Your task to perform on an android device: stop showing notifications on the lock screen Image 0: 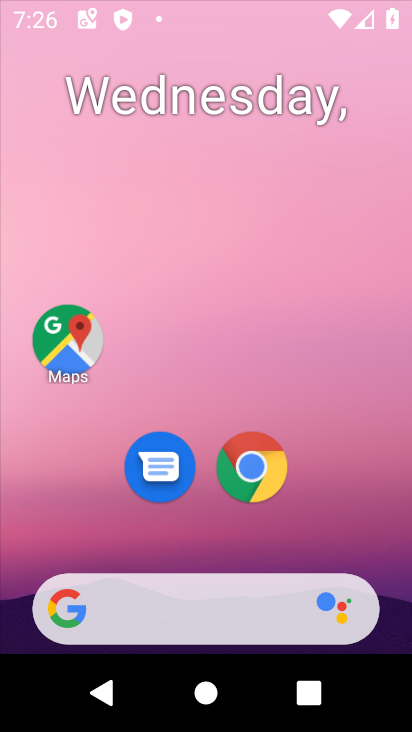
Step 0: click (247, 468)
Your task to perform on an android device: stop showing notifications on the lock screen Image 1: 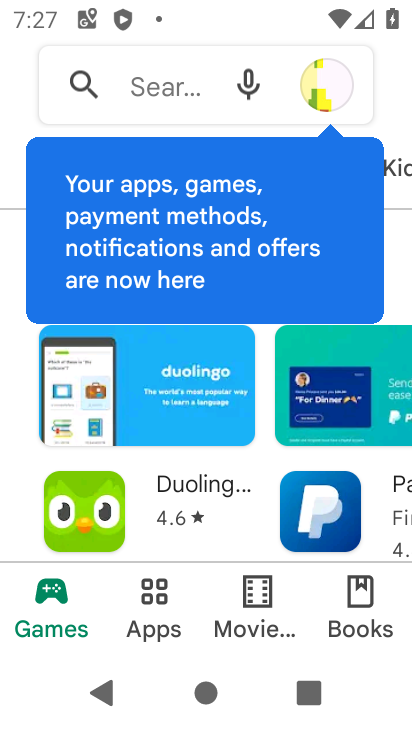
Step 1: press home button
Your task to perform on an android device: stop showing notifications on the lock screen Image 2: 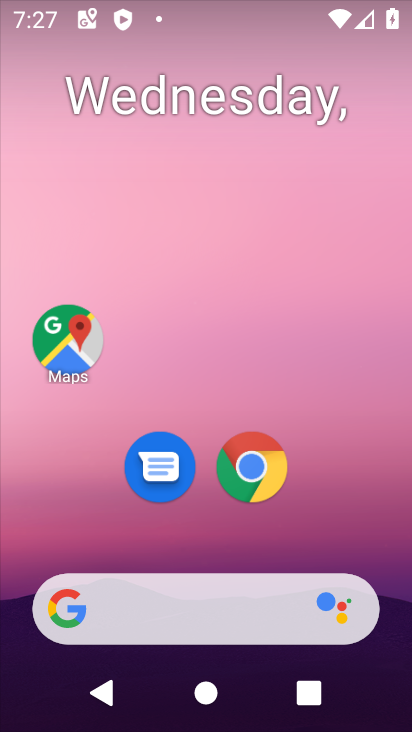
Step 2: drag from (375, 339) to (352, 65)
Your task to perform on an android device: stop showing notifications on the lock screen Image 3: 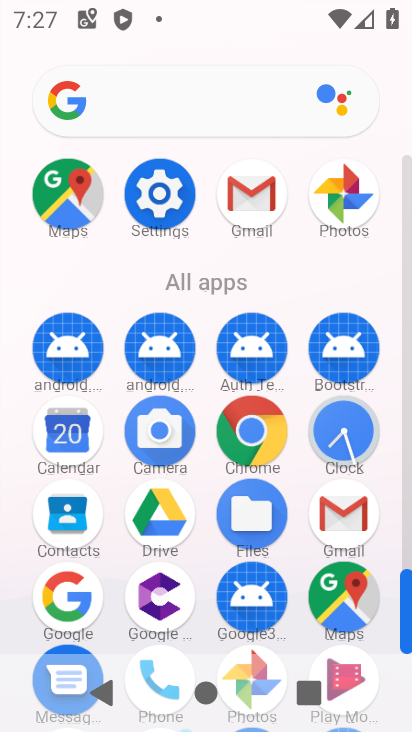
Step 3: click (159, 194)
Your task to perform on an android device: stop showing notifications on the lock screen Image 4: 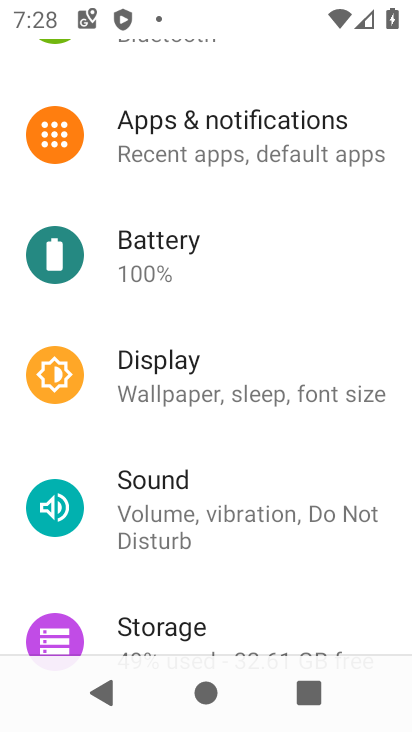
Step 4: drag from (338, 474) to (308, 183)
Your task to perform on an android device: stop showing notifications on the lock screen Image 5: 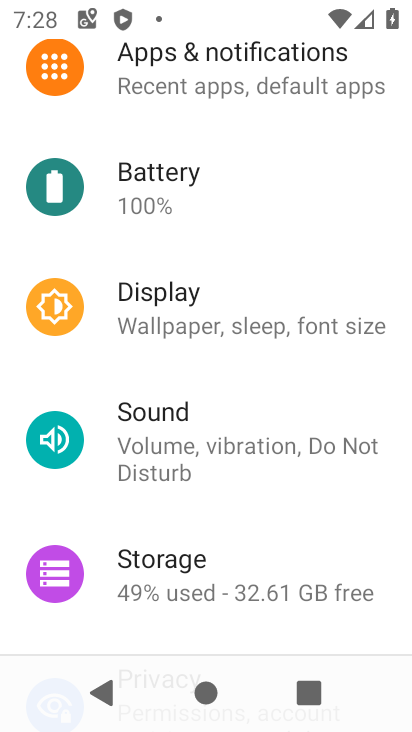
Step 5: click (169, 72)
Your task to perform on an android device: stop showing notifications on the lock screen Image 6: 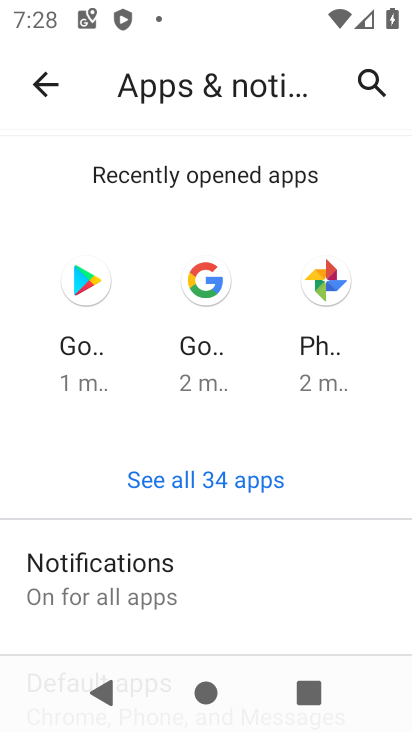
Step 6: click (99, 573)
Your task to perform on an android device: stop showing notifications on the lock screen Image 7: 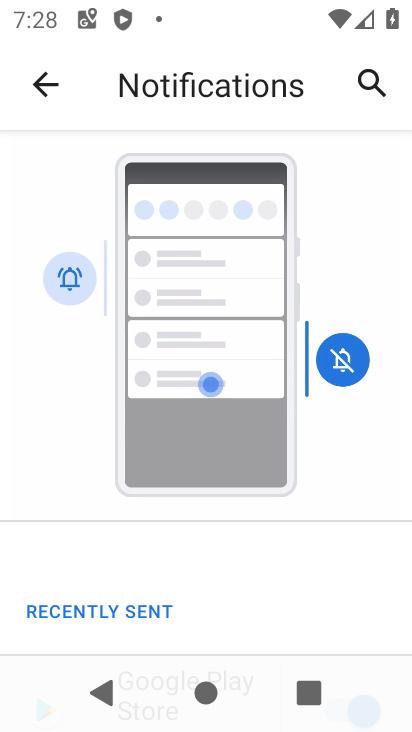
Step 7: drag from (319, 609) to (312, 119)
Your task to perform on an android device: stop showing notifications on the lock screen Image 8: 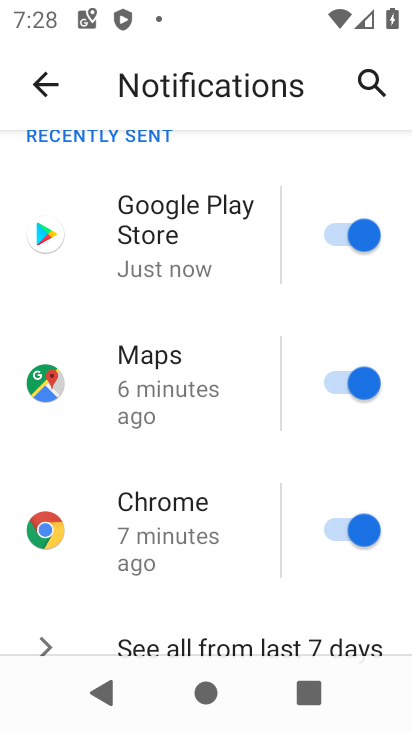
Step 8: drag from (258, 587) to (296, 268)
Your task to perform on an android device: stop showing notifications on the lock screen Image 9: 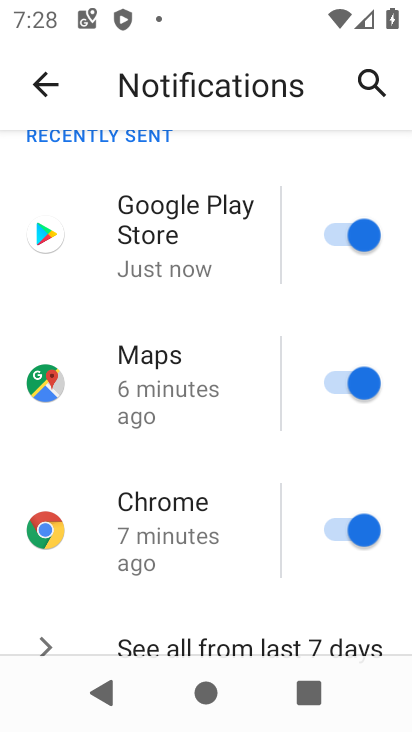
Step 9: drag from (275, 517) to (274, 267)
Your task to perform on an android device: stop showing notifications on the lock screen Image 10: 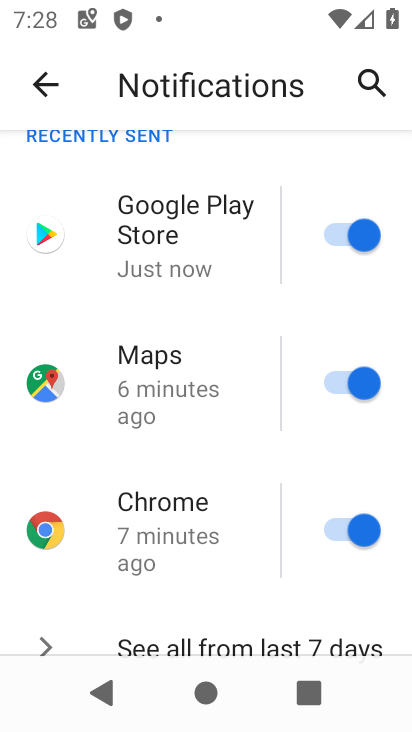
Step 10: drag from (263, 596) to (288, 244)
Your task to perform on an android device: stop showing notifications on the lock screen Image 11: 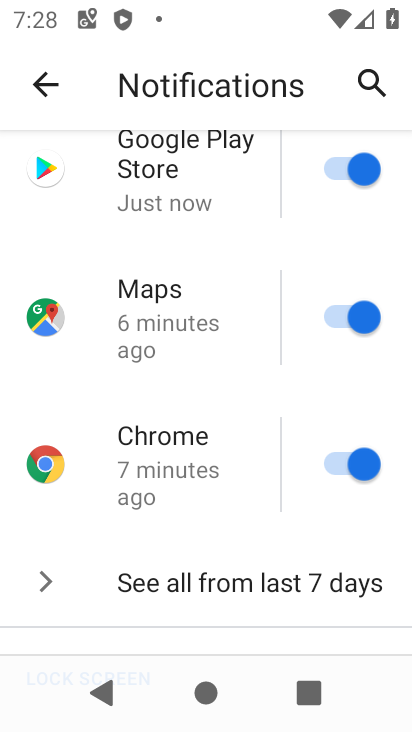
Step 11: drag from (259, 568) to (258, 214)
Your task to perform on an android device: stop showing notifications on the lock screen Image 12: 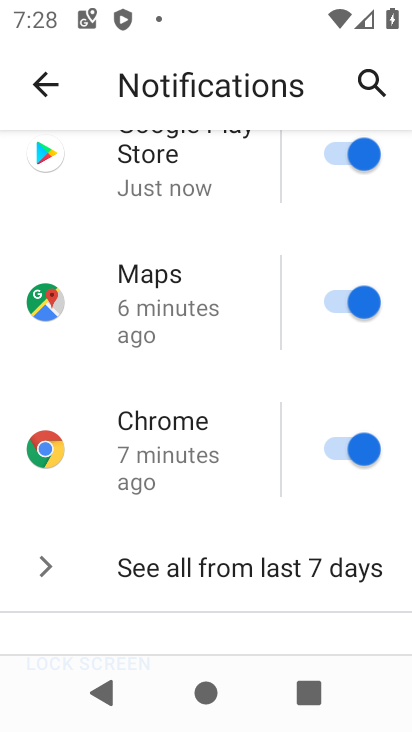
Step 12: drag from (269, 459) to (273, 284)
Your task to perform on an android device: stop showing notifications on the lock screen Image 13: 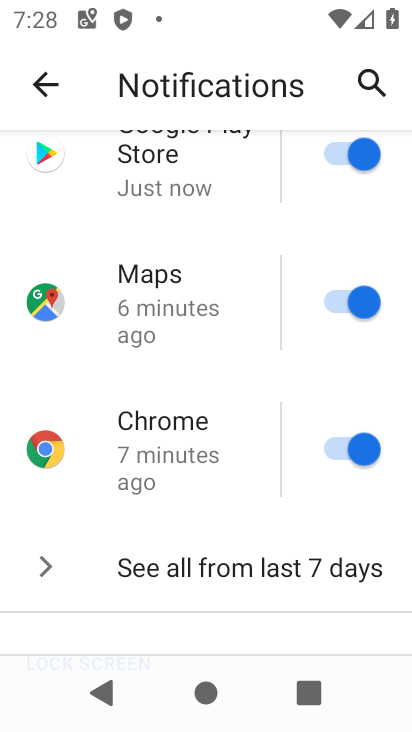
Step 13: drag from (265, 573) to (248, 265)
Your task to perform on an android device: stop showing notifications on the lock screen Image 14: 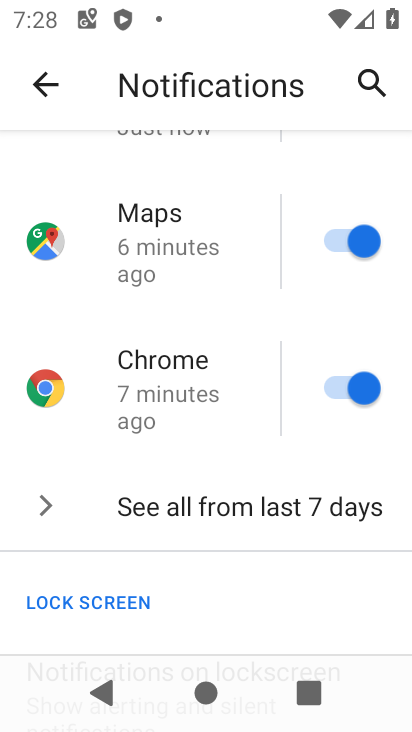
Step 14: drag from (239, 423) to (269, 248)
Your task to perform on an android device: stop showing notifications on the lock screen Image 15: 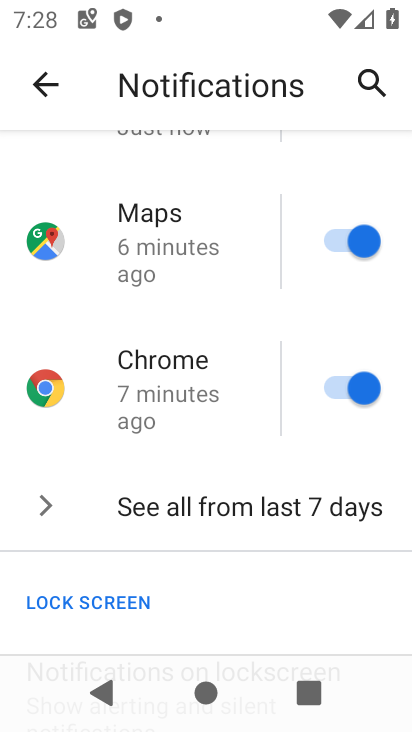
Step 15: click (72, 595)
Your task to perform on an android device: stop showing notifications on the lock screen Image 16: 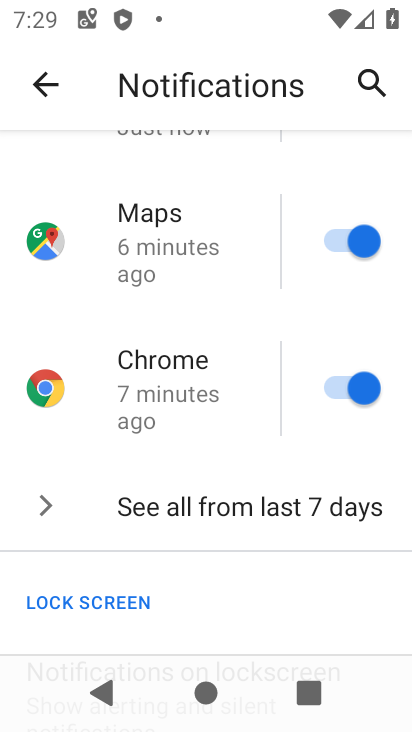
Step 16: drag from (198, 567) to (224, 277)
Your task to perform on an android device: stop showing notifications on the lock screen Image 17: 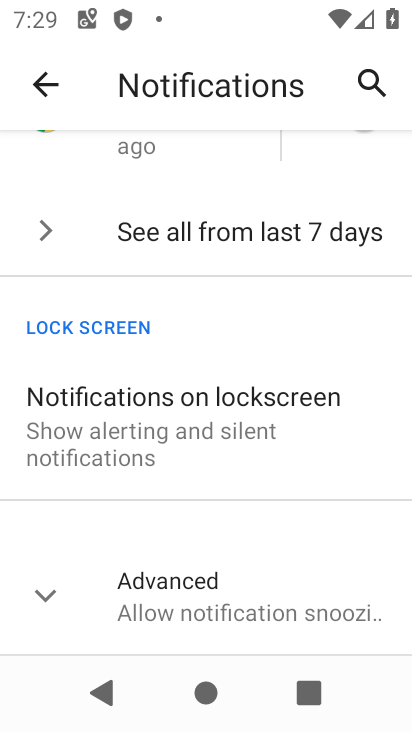
Step 17: click (100, 395)
Your task to perform on an android device: stop showing notifications on the lock screen Image 18: 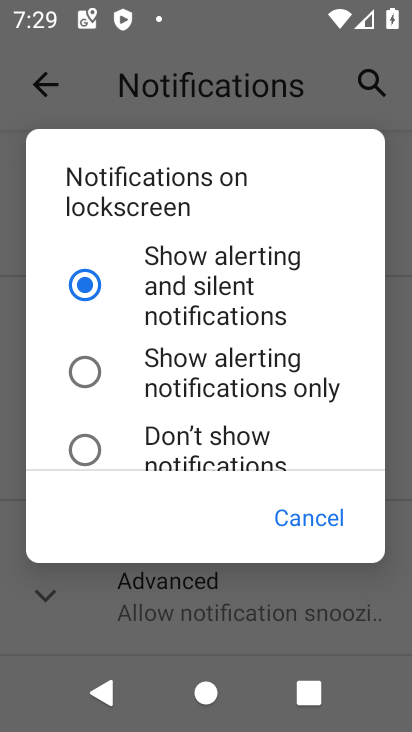
Step 18: click (85, 441)
Your task to perform on an android device: stop showing notifications on the lock screen Image 19: 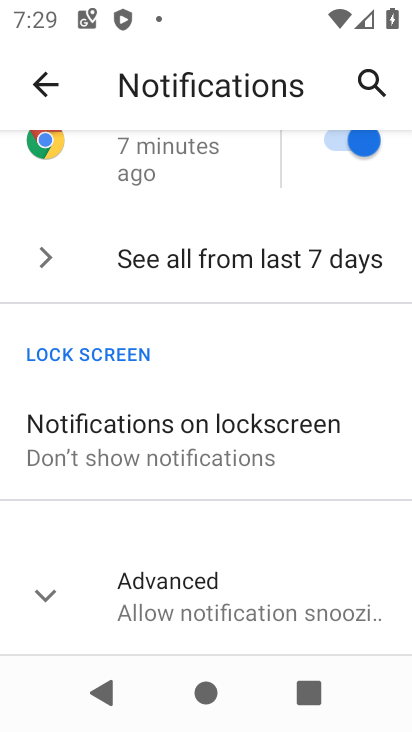
Step 19: task complete